Your task to perform on an android device: Show me recent news Image 0: 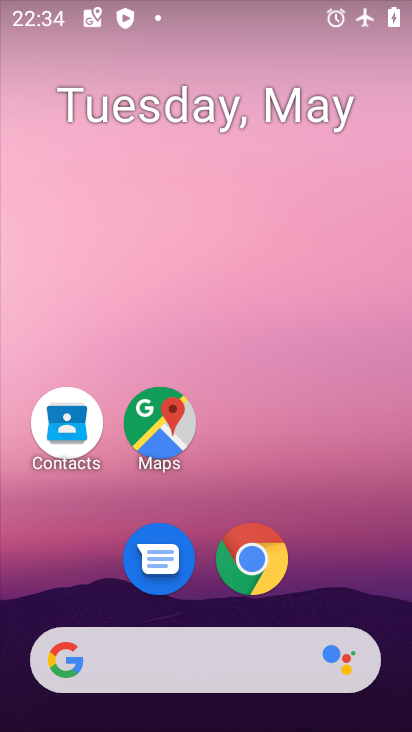
Step 0: task complete